Your task to perform on an android device: search for starred emails in the gmail app Image 0: 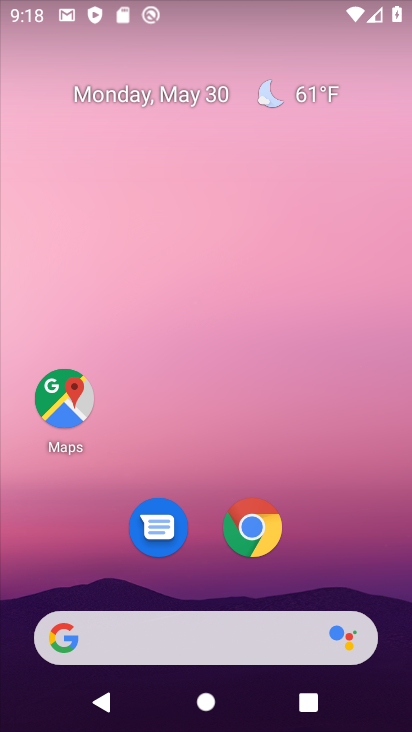
Step 0: drag from (195, 583) to (172, 47)
Your task to perform on an android device: search for starred emails in the gmail app Image 1: 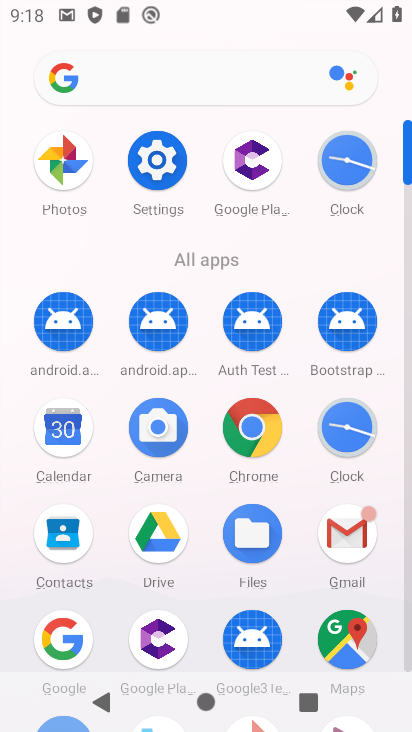
Step 1: click (343, 528)
Your task to perform on an android device: search for starred emails in the gmail app Image 2: 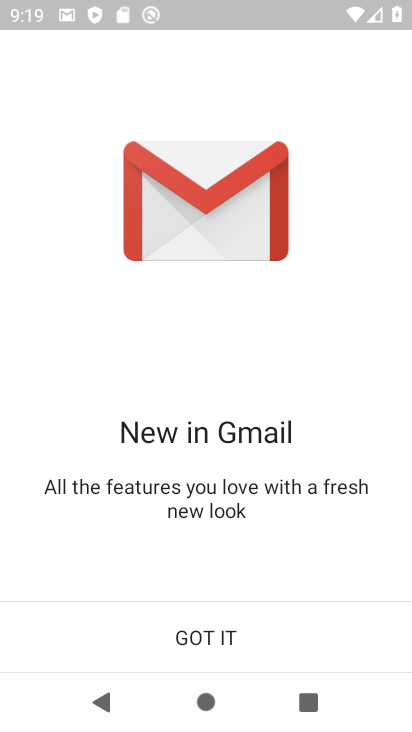
Step 2: click (172, 632)
Your task to perform on an android device: search for starred emails in the gmail app Image 3: 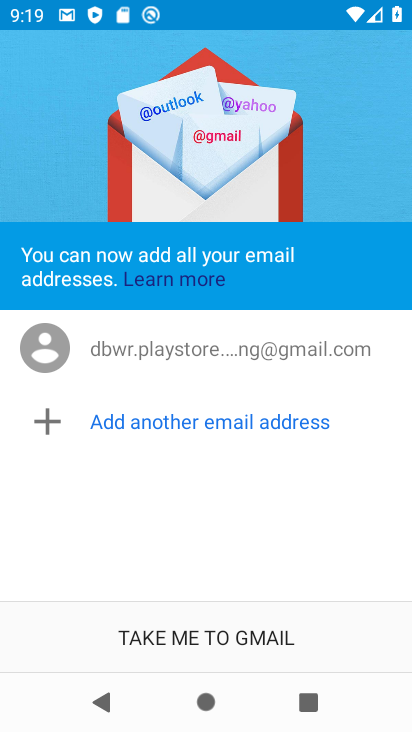
Step 3: click (176, 626)
Your task to perform on an android device: search for starred emails in the gmail app Image 4: 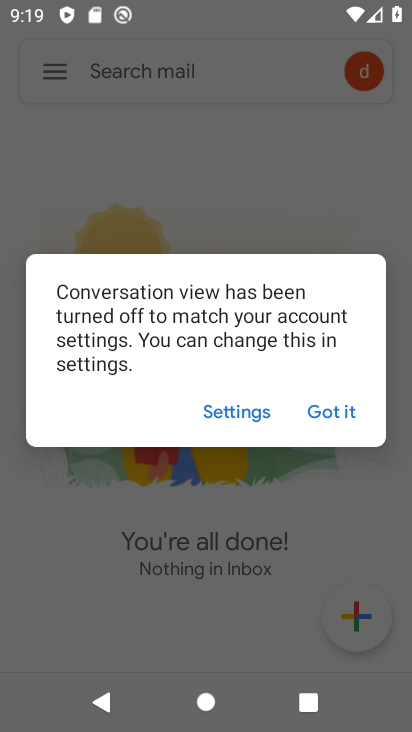
Step 4: click (338, 416)
Your task to perform on an android device: search for starred emails in the gmail app Image 5: 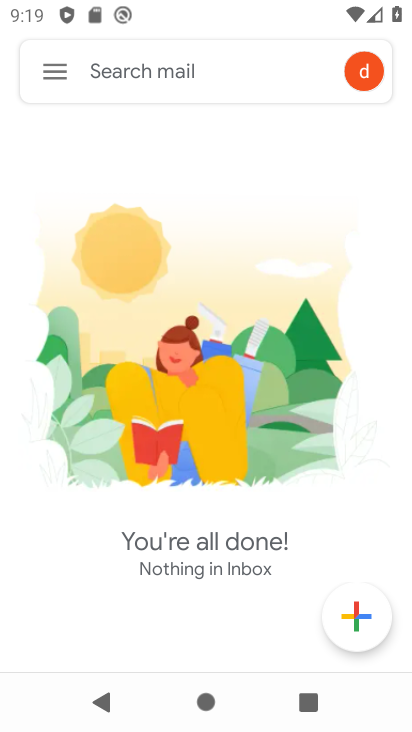
Step 5: click (54, 66)
Your task to perform on an android device: search for starred emails in the gmail app Image 6: 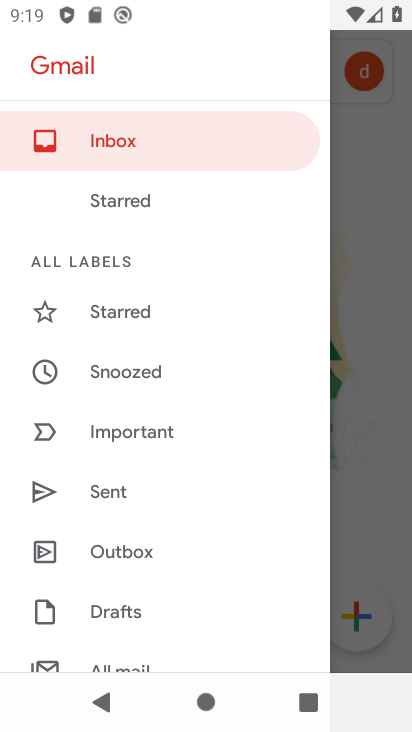
Step 6: click (126, 204)
Your task to perform on an android device: search for starred emails in the gmail app Image 7: 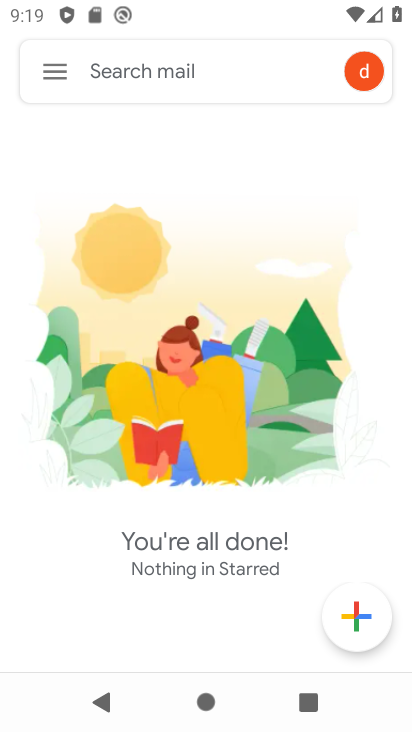
Step 7: task complete